Your task to perform on an android device: Check the news Image 0: 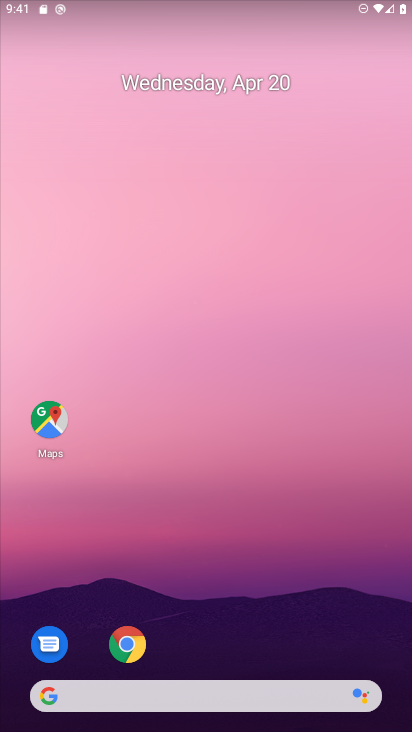
Step 0: drag from (311, 632) to (209, 65)
Your task to perform on an android device: Check the news Image 1: 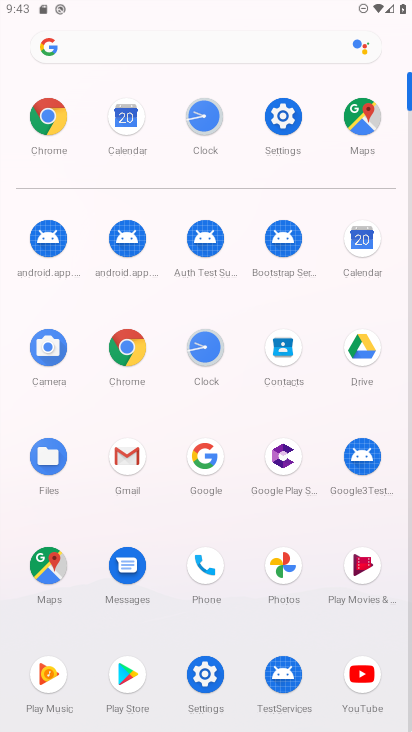
Step 1: click (121, 341)
Your task to perform on an android device: Check the news Image 2: 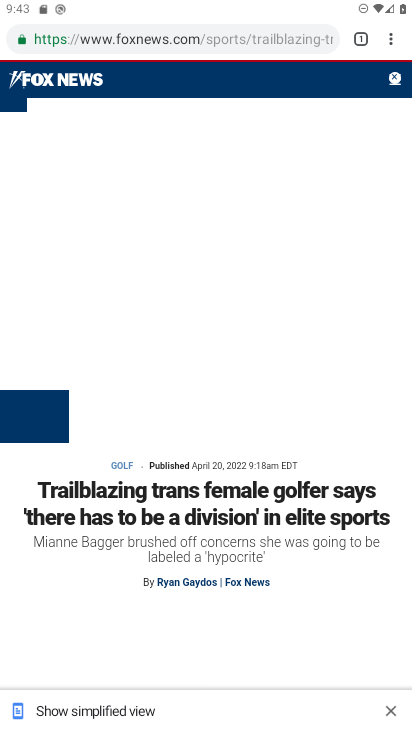
Step 2: task complete